Your task to perform on an android device: Open Google Chrome Image 0: 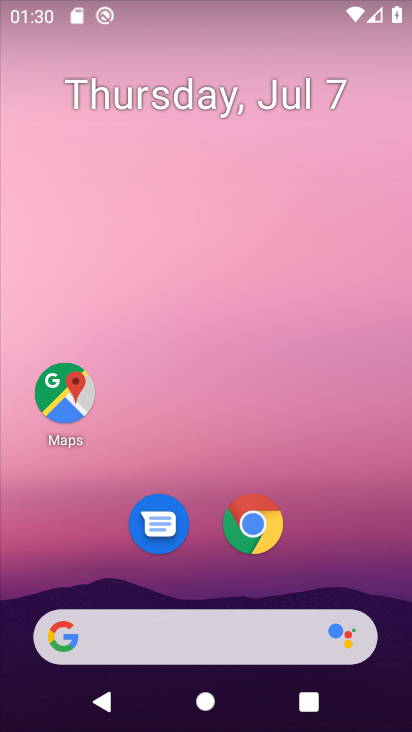
Step 0: click (254, 528)
Your task to perform on an android device: Open Google Chrome Image 1: 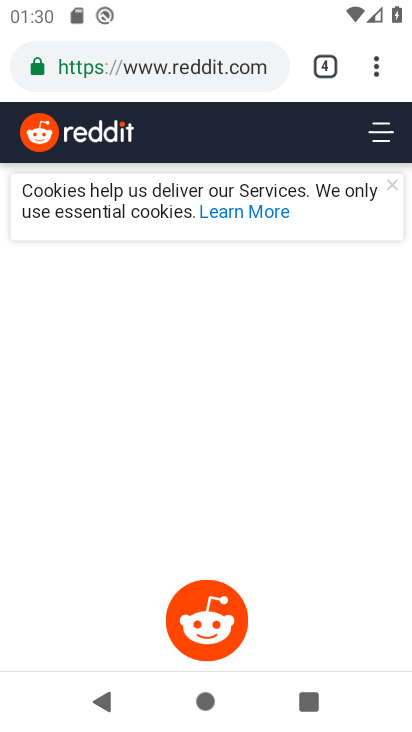
Step 1: task complete